Your task to perform on an android device: turn off location Image 0: 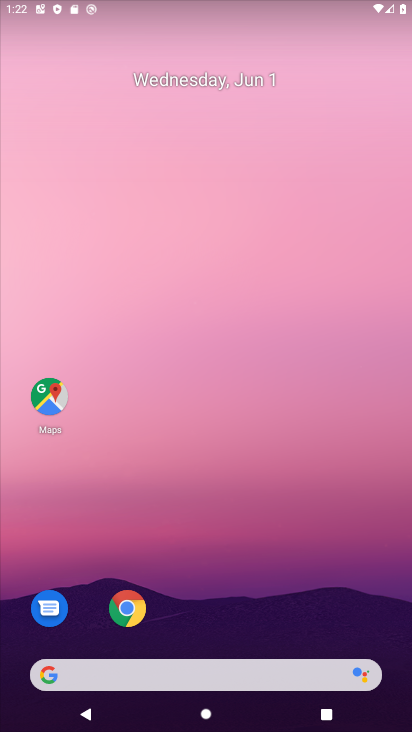
Step 0: drag from (223, 493) to (405, 21)
Your task to perform on an android device: turn off location Image 1: 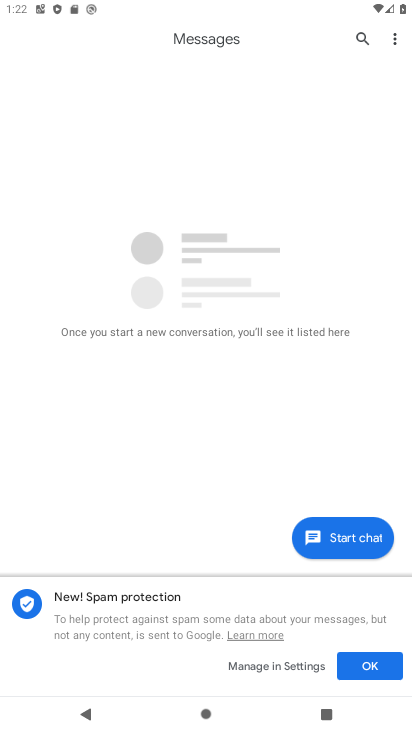
Step 1: press home button
Your task to perform on an android device: turn off location Image 2: 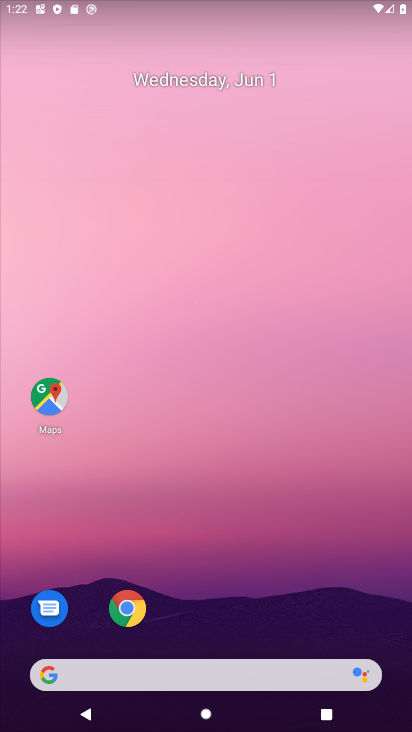
Step 2: drag from (215, 586) to (271, 74)
Your task to perform on an android device: turn off location Image 3: 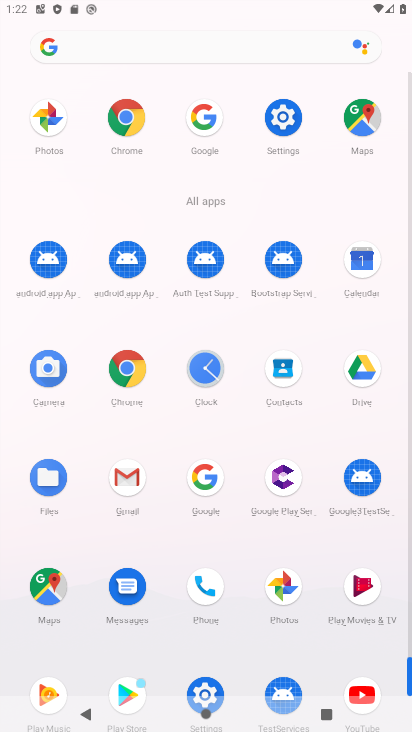
Step 3: click (288, 129)
Your task to perform on an android device: turn off location Image 4: 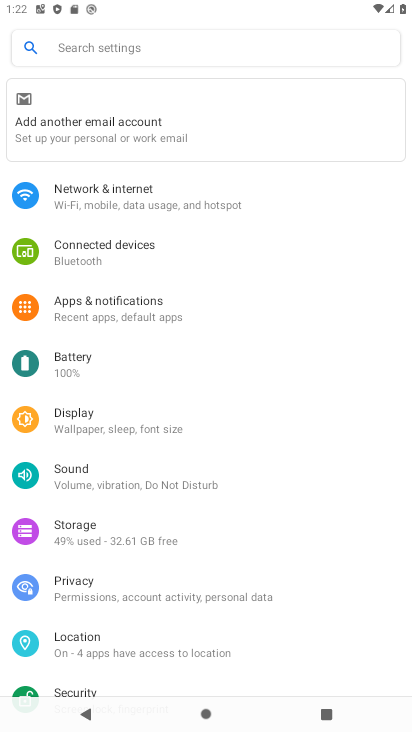
Step 4: click (83, 647)
Your task to perform on an android device: turn off location Image 5: 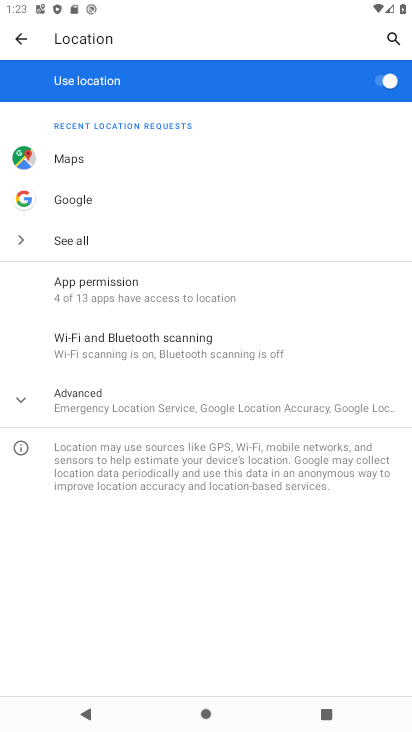
Step 5: click (156, 408)
Your task to perform on an android device: turn off location Image 6: 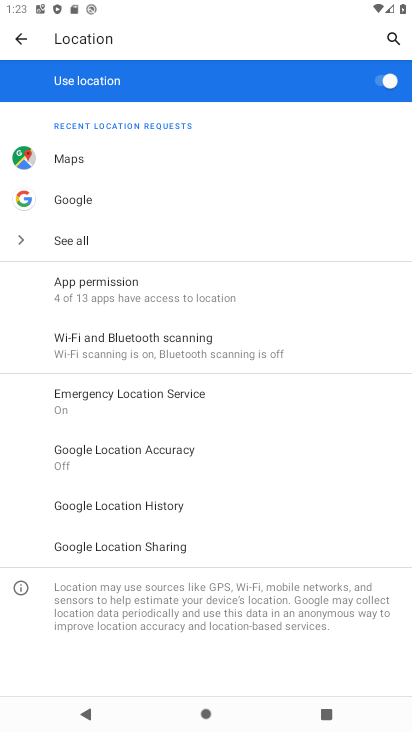
Step 6: click (375, 79)
Your task to perform on an android device: turn off location Image 7: 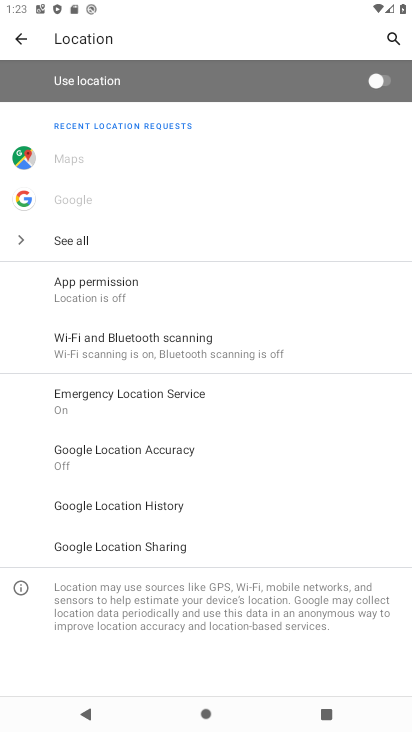
Step 7: task complete